Your task to perform on an android device: check the backup settings in the google photos Image 0: 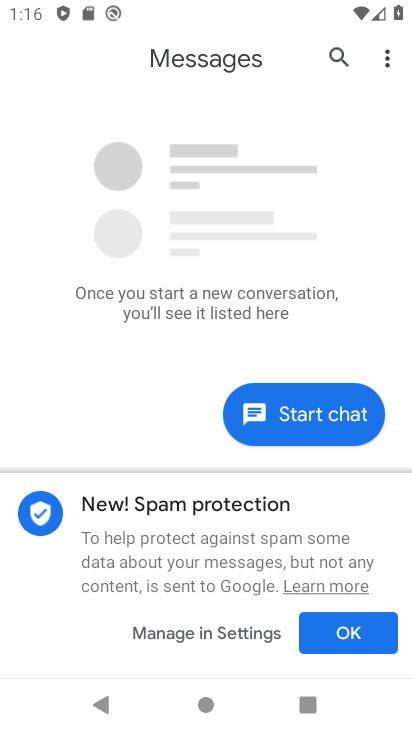
Step 0: press home button
Your task to perform on an android device: check the backup settings in the google photos Image 1: 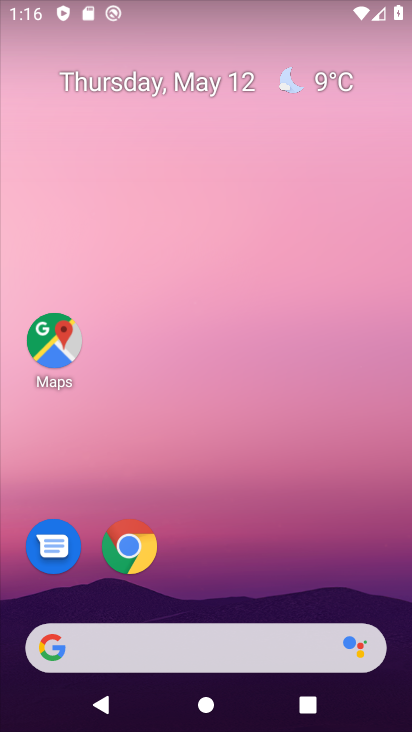
Step 1: drag from (197, 666) to (363, 294)
Your task to perform on an android device: check the backup settings in the google photos Image 2: 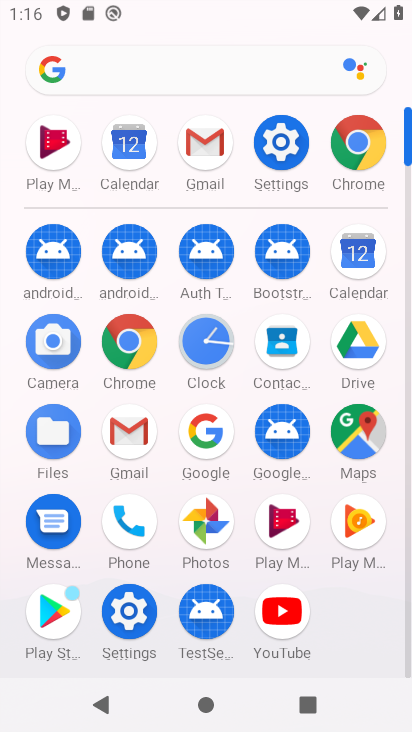
Step 2: click (218, 516)
Your task to perform on an android device: check the backup settings in the google photos Image 3: 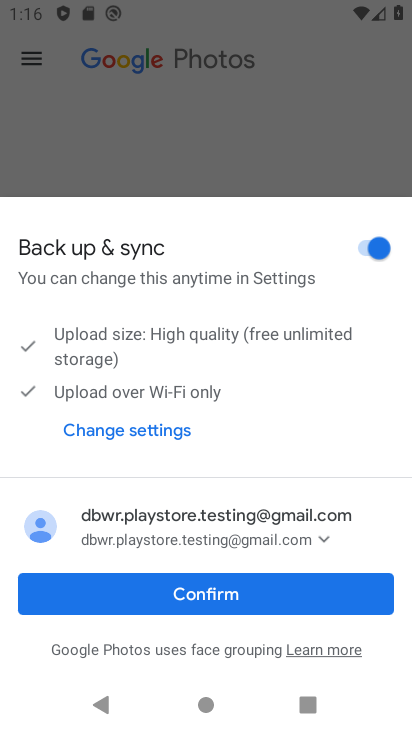
Step 3: click (175, 601)
Your task to perform on an android device: check the backup settings in the google photos Image 4: 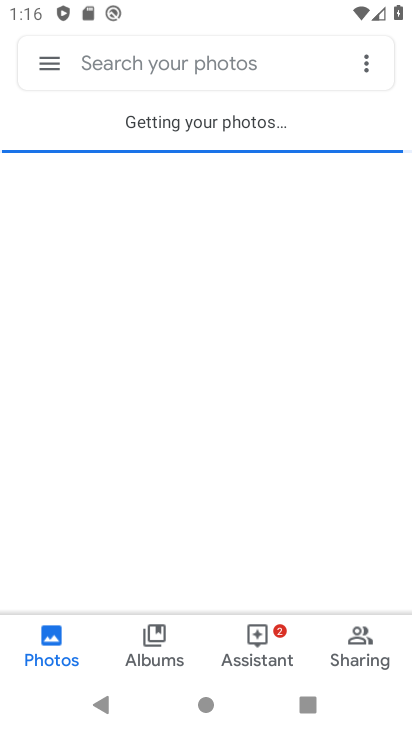
Step 4: click (60, 66)
Your task to perform on an android device: check the backup settings in the google photos Image 5: 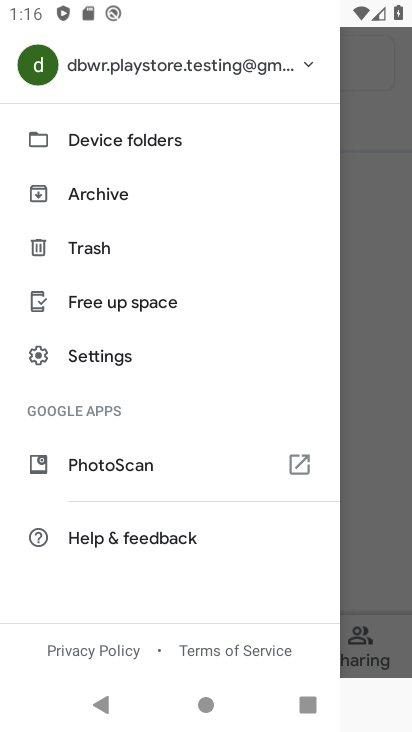
Step 5: click (105, 359)
Your task to perform on an android device: check the backup settings in the google photos Image 6: 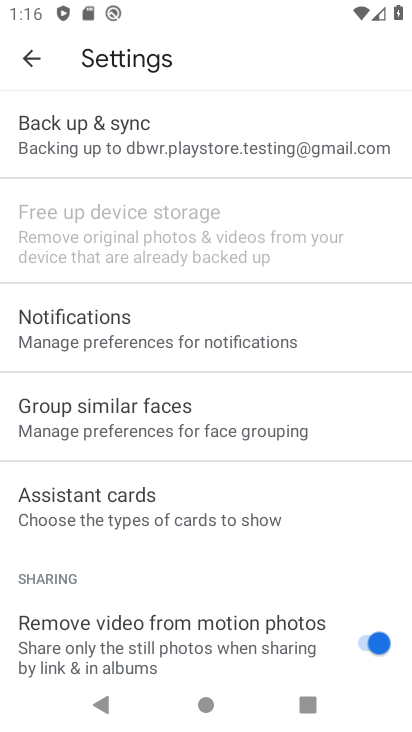
Step 6: click (129, 151)
Your task to perform on an android device: check the backup settings in the google photos Image 7: 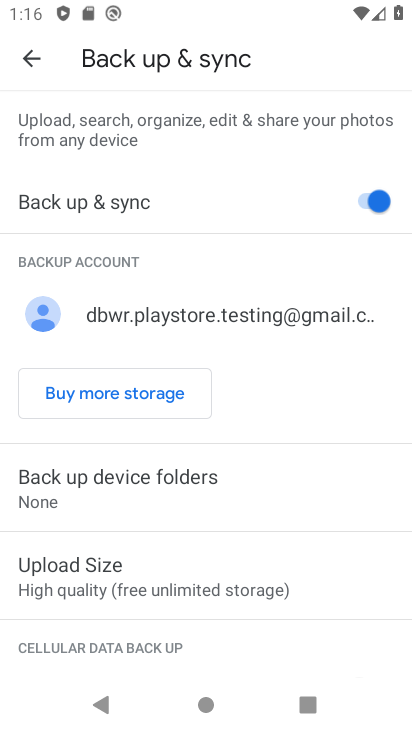
Step 7: task complete